Your task to perform on an android device: Go to CNN.com Image 0: 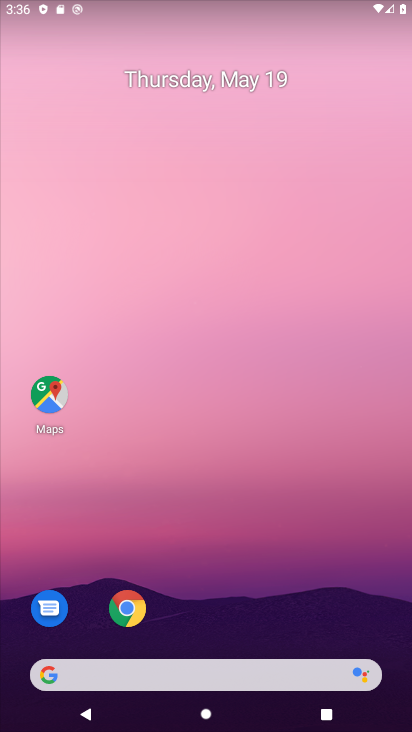
Step 0: click (124, 608)
Your task to perform on an android device: Go to CNN.com Image 1: 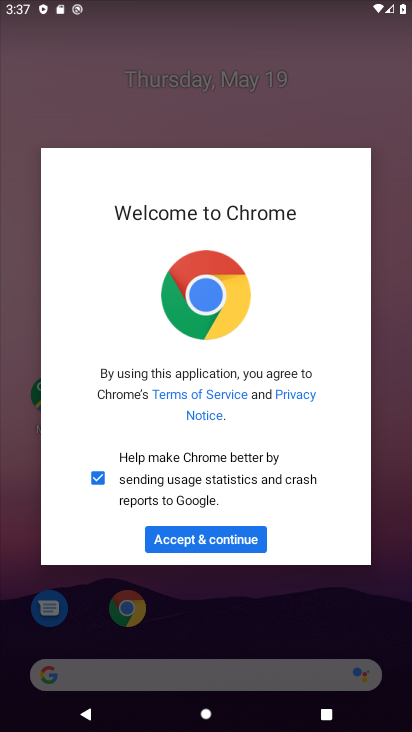
Step 1: click (210, 530)
Your task to perform on an android device: Go to CNN.com Image 2: 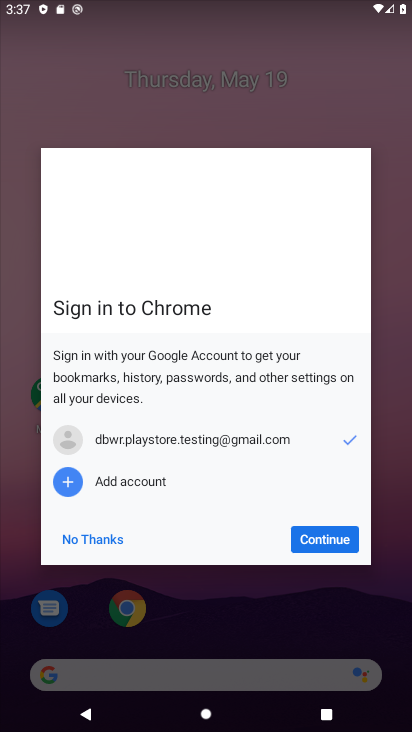
Step 2: click (327, 539)
Your task to perform on an android device: Go to CNN.com Image 3: 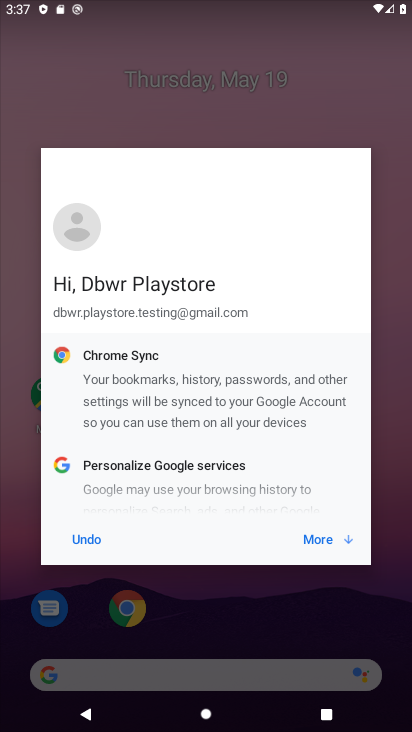
Step 3: click (314, 535)
Your task to perform on an android device: Go to CNN.com Image 4: 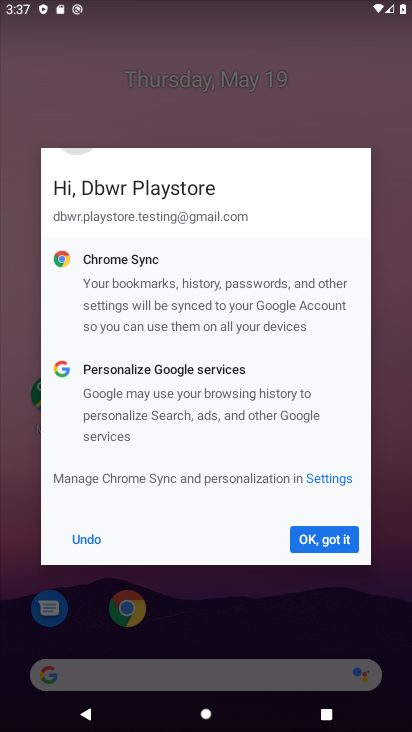
Step 4: click (326, 536)
Your task to perform on an android device: Go to CNN.com Image 5: 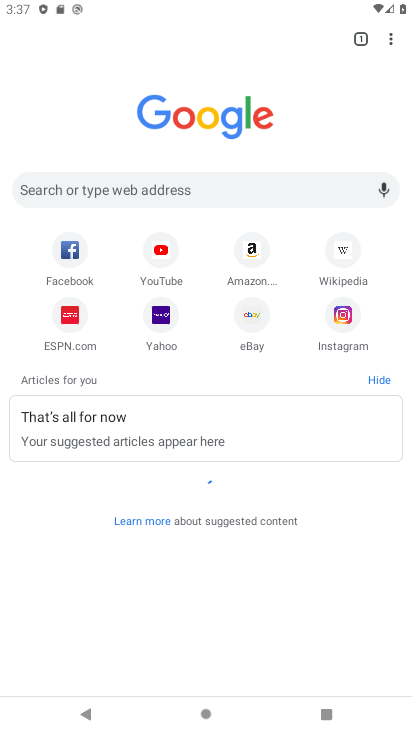
Step 5: click (200, 185)
Your task to perform on an android device: Go to CNN.com Image 6: 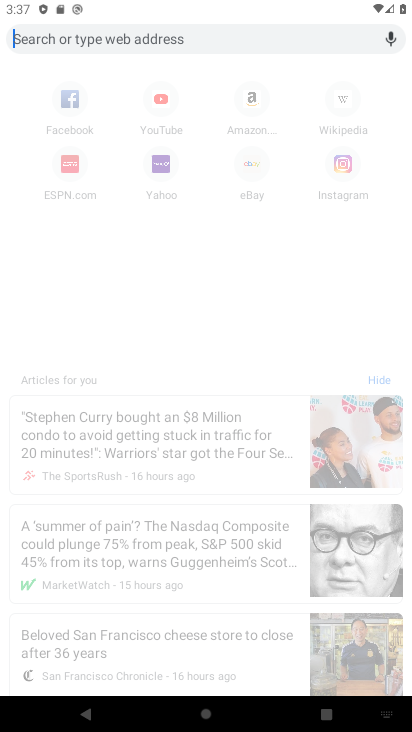
Step 6: type "CNN.com"
Your task to perform on an android device: Go to CNN.com Image 7: 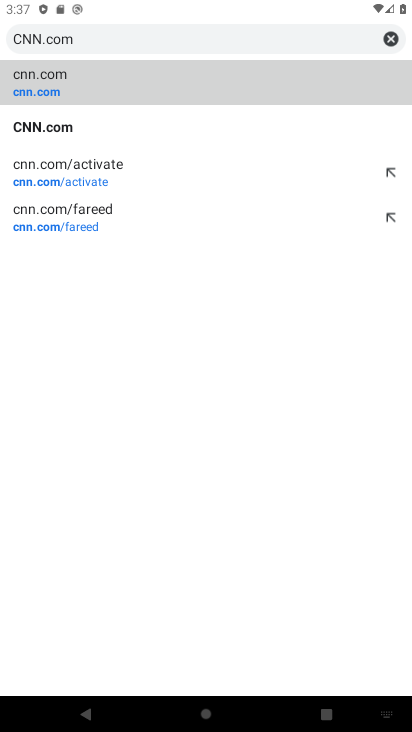
Step 7: click (46, 86)
Your task to perform on an android device: Go to CNN.com Image 8: 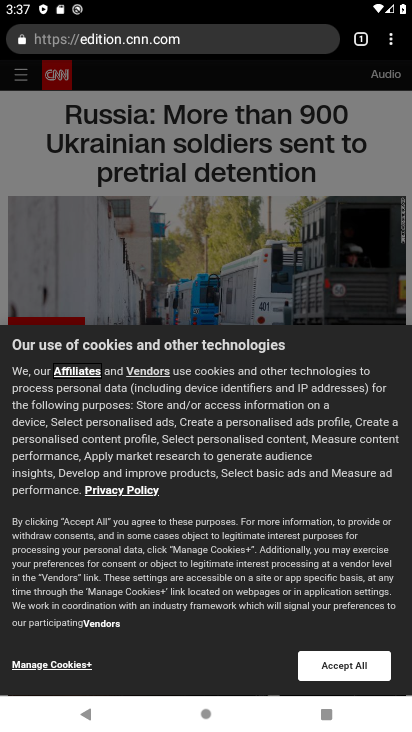
Step 8: task complete